Your task to perform on an android device: Open Google Maps Image 0: 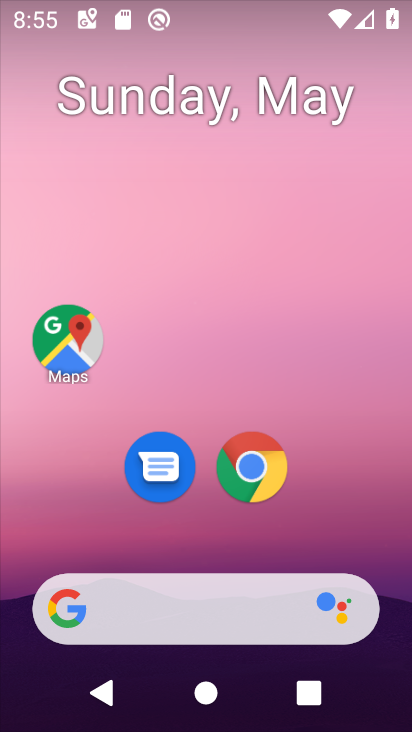
Step 0: drag from (391, 526) to (384, 138)
Your task to perform on an android device: Open Google Maps Image 1: 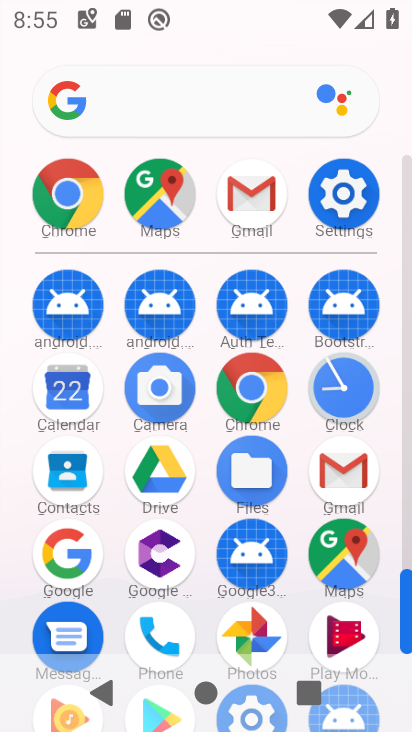
Step 1: click (167, 191)
Your task to perform on an android device: Open Google Maps Image 2: 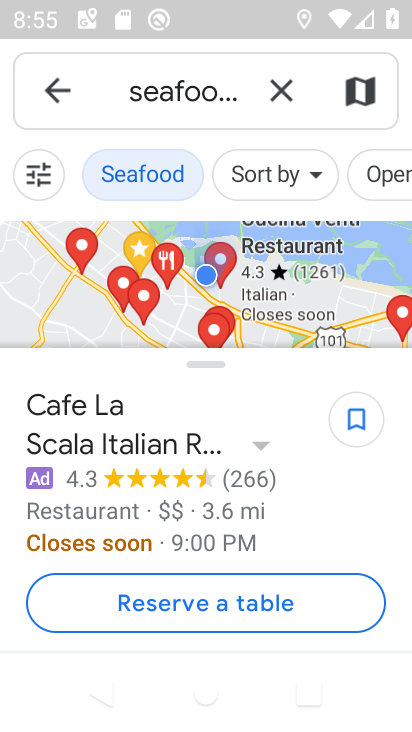
Step 2: task complete